Your task to perform on an android device: turn on translation in the chrome app Image 0: 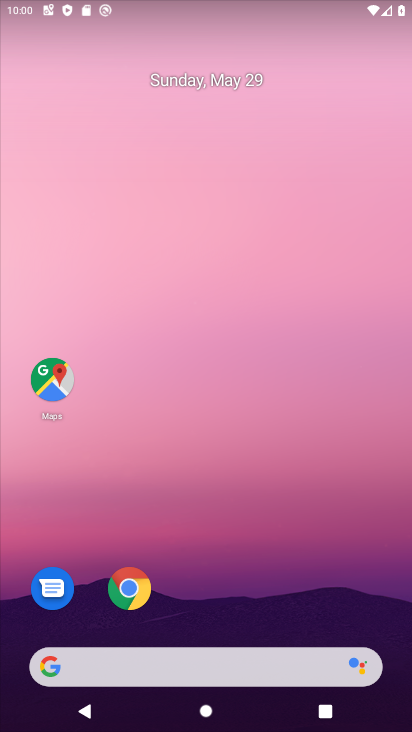
Step 0: drag from (195, 605) to (229, 4)
Your task to perform on an android device: turn on translation in the chrome app Image 1: 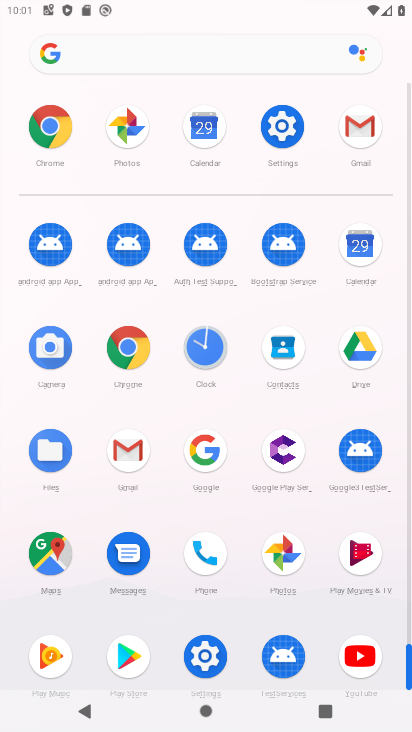
Step 1: click (119, 357)
Your task to perform on an android device: turn on translation in the chrome app Image 2: 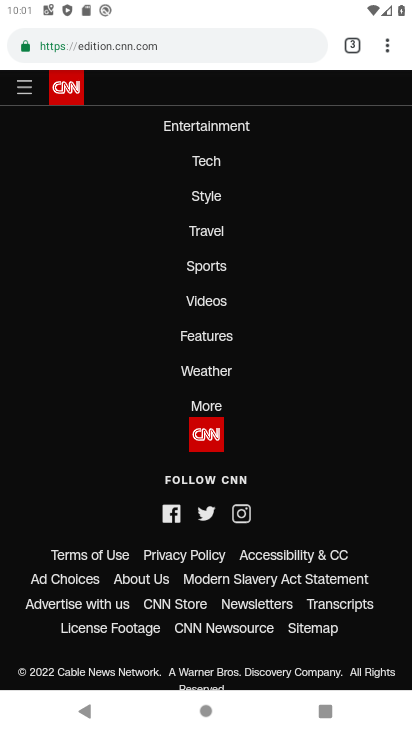
Step 2: click (385, 48)
Your task to perform on an android device: turn on translation in the chrome app Image 3: 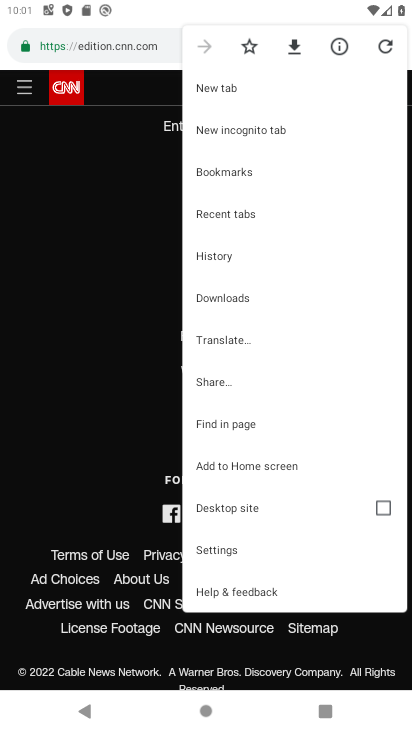
Step 3: drag from (244, 387) to (284, 141)
Your task to perform on an android device: turn on translation in the chrome app Image 4: 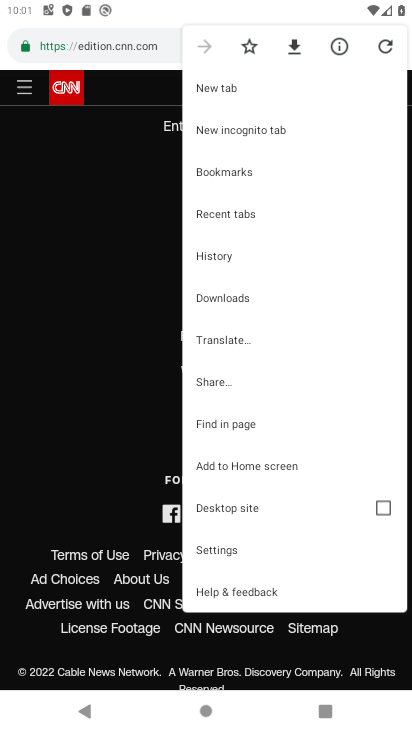
Step 4: click (240, 550)
Your task to perform on an android device: turn on translation in the chrome app Image 5: 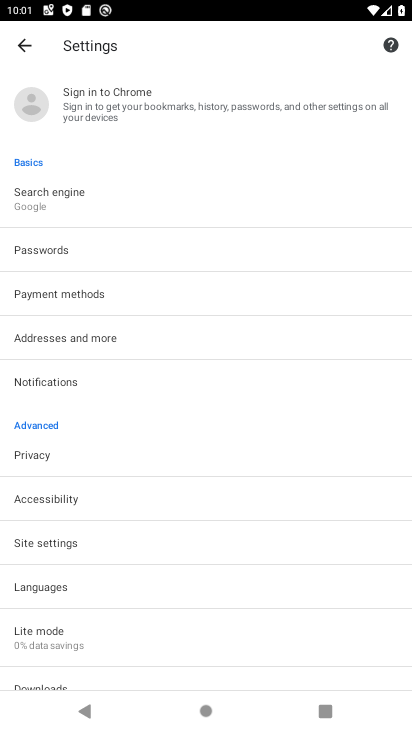
Step 5: click (103, 590)
Your task to perform on an android device: turn on translation in the chrome app Image 6: 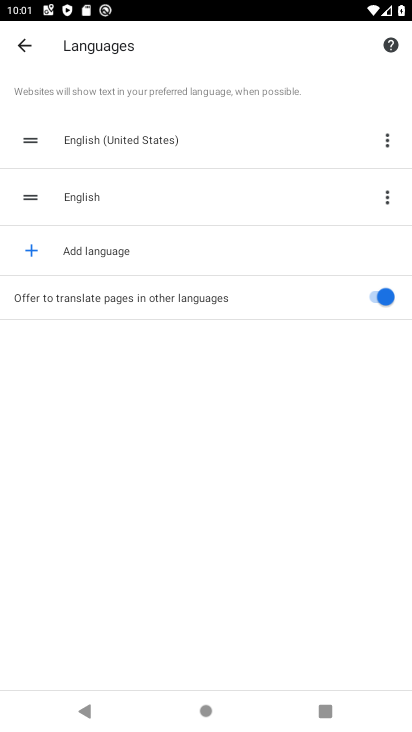
Step 6: task complete